Your task to perform on an android device: Add jbl flip 4 to the cart on newegg.com Image 0: 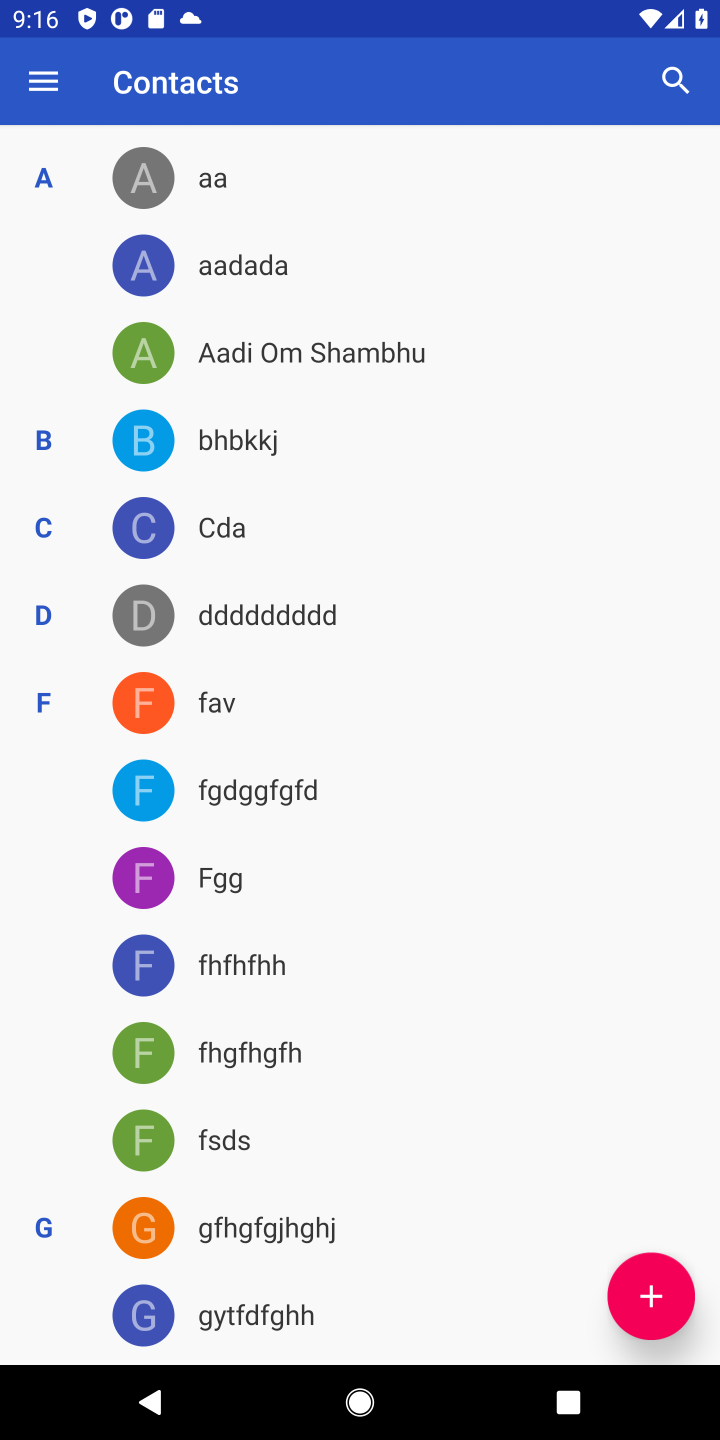
Step 0: press home button
Your task to perform on an android device: Add jbl flip 4 to the cart on newegg.com Image 1: 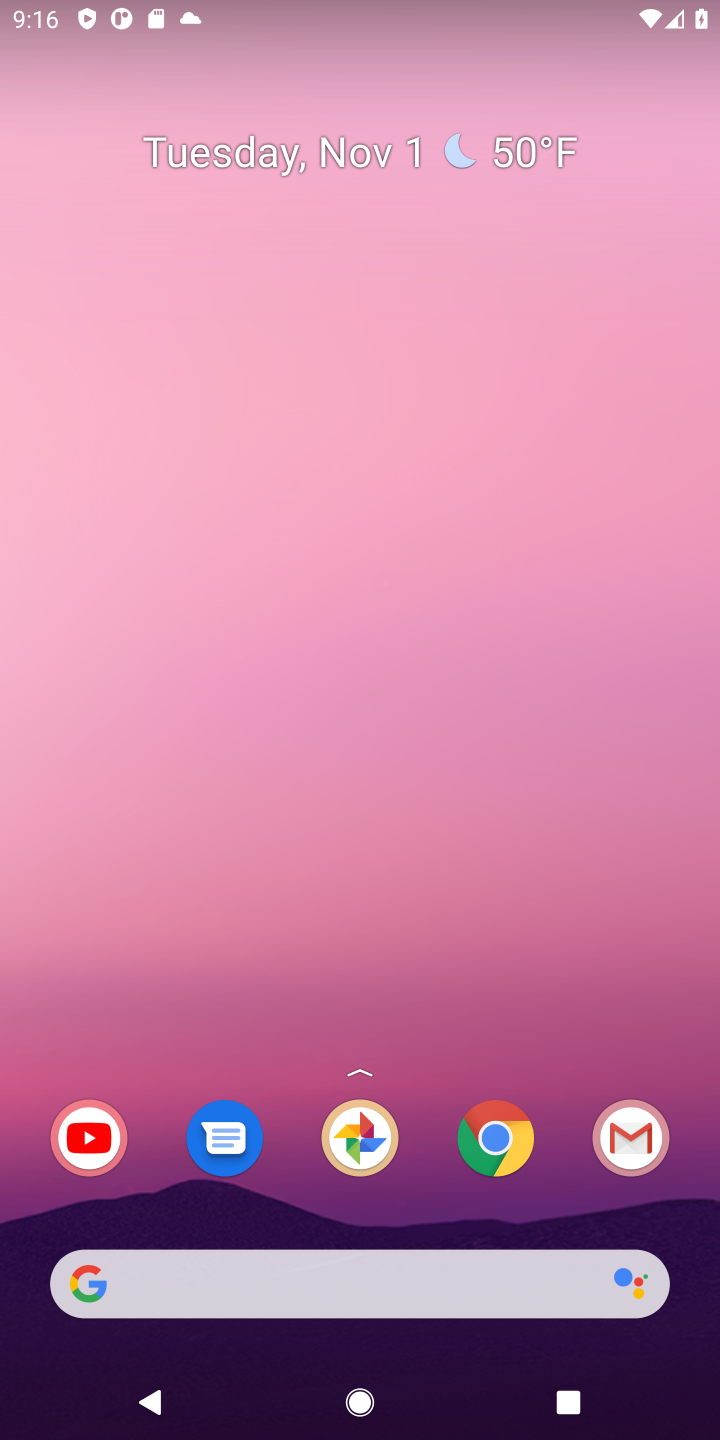
Step 1: click (498, 1145)
Your task to perform on an android device: Add jbl flip 4 to the cart on newegg.com Image 2: 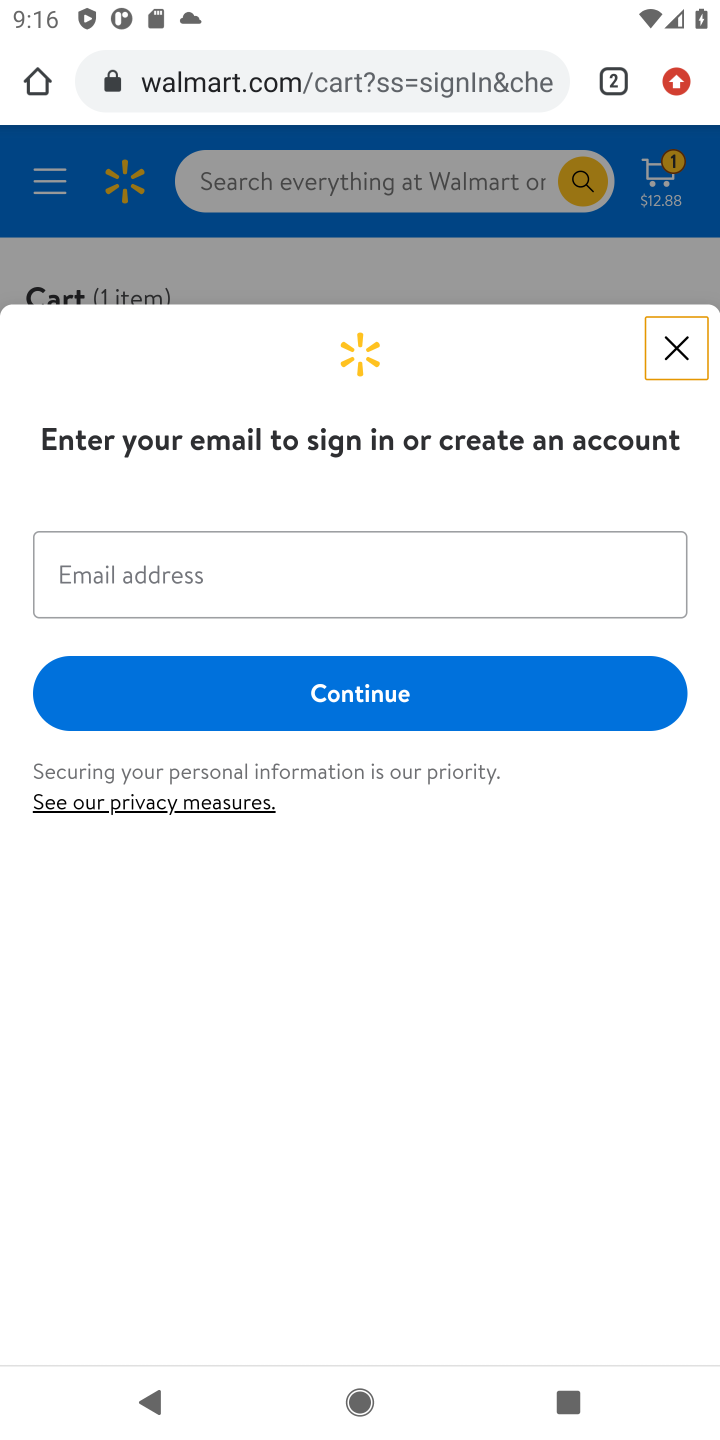
Step 2: click (399, 78)
Your task to perform on an android device: Add jbl flip 4 to the cart on newegg.com Image 3: 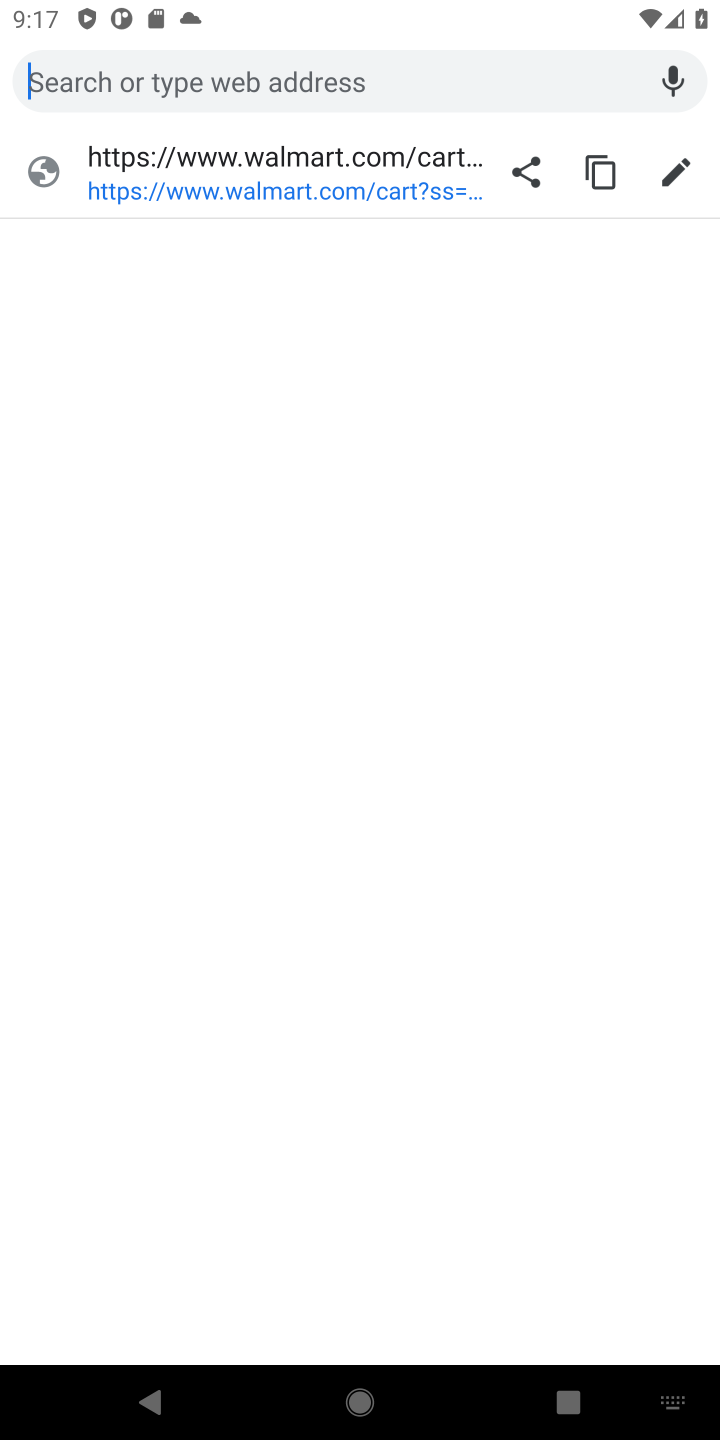
Step 3: type "newegg.com"
Your task to perform on an android device: Add jbl flip 4 to the cart on newegg.com Image 4: 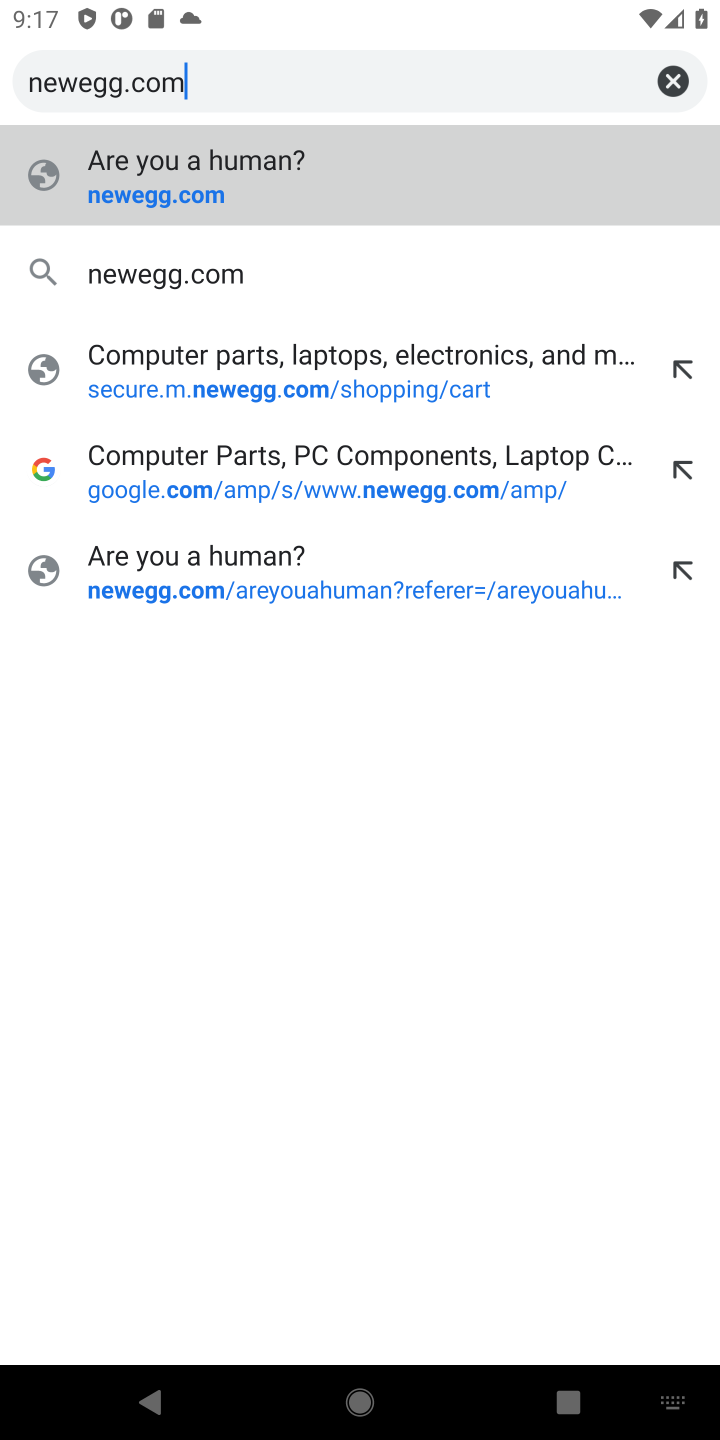
Step 4: click (217, 291)
Your task to perform on an android device: Add jbl flip 4 to the cart on newegg.com Image 5: 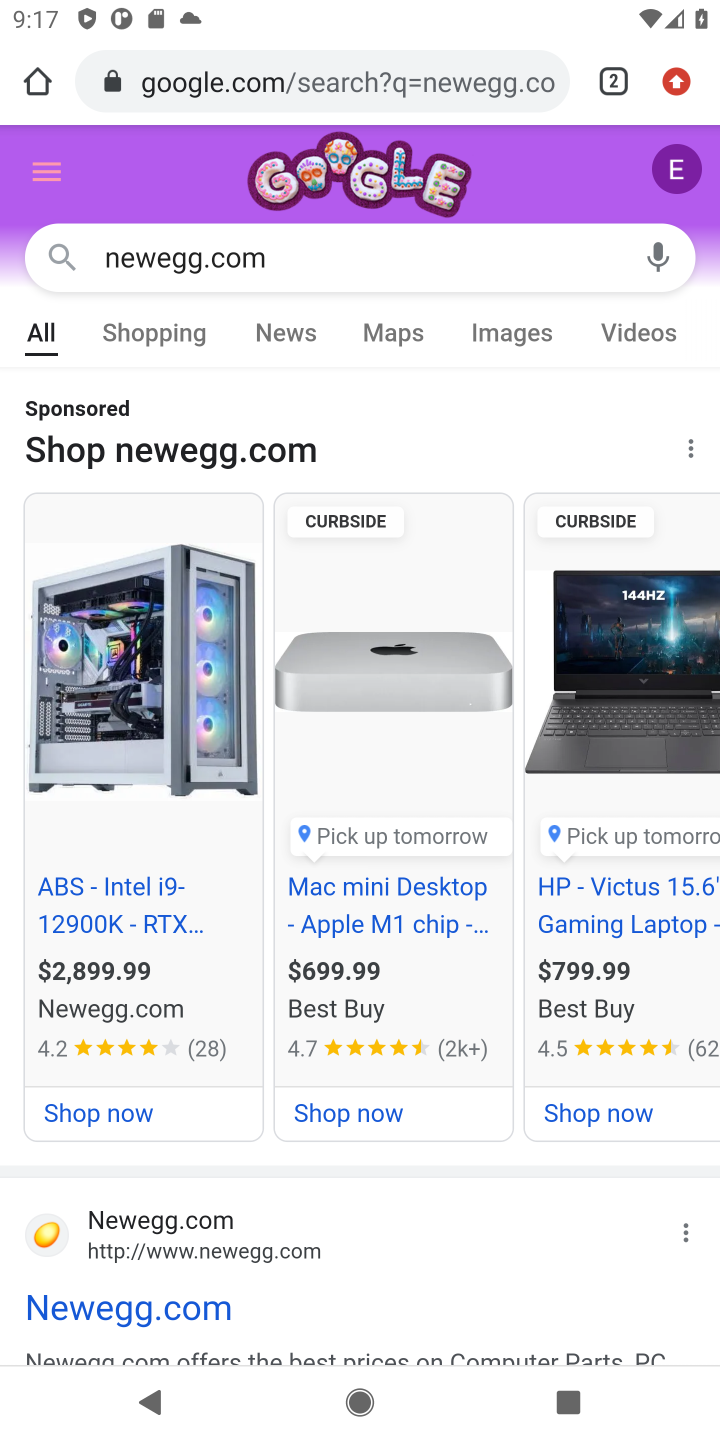
Step 5: click (226, 1234)
Your task to perform on an android device: Add jbl flip 4 to the cart on newegg.com Image 6: 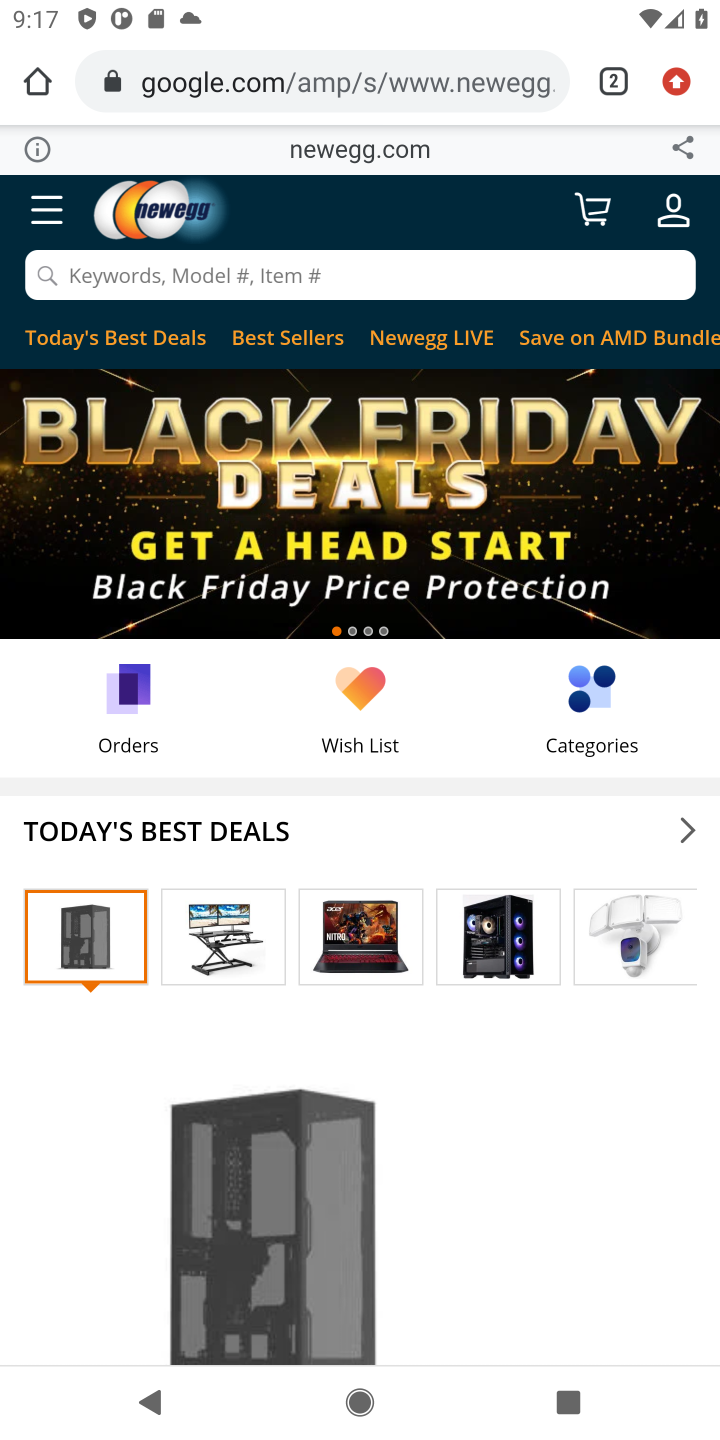
Step 6: click (401, 282)
Your task to perform on an android device: Add jbl flip 4 to the cart on newegg.com Image 7: 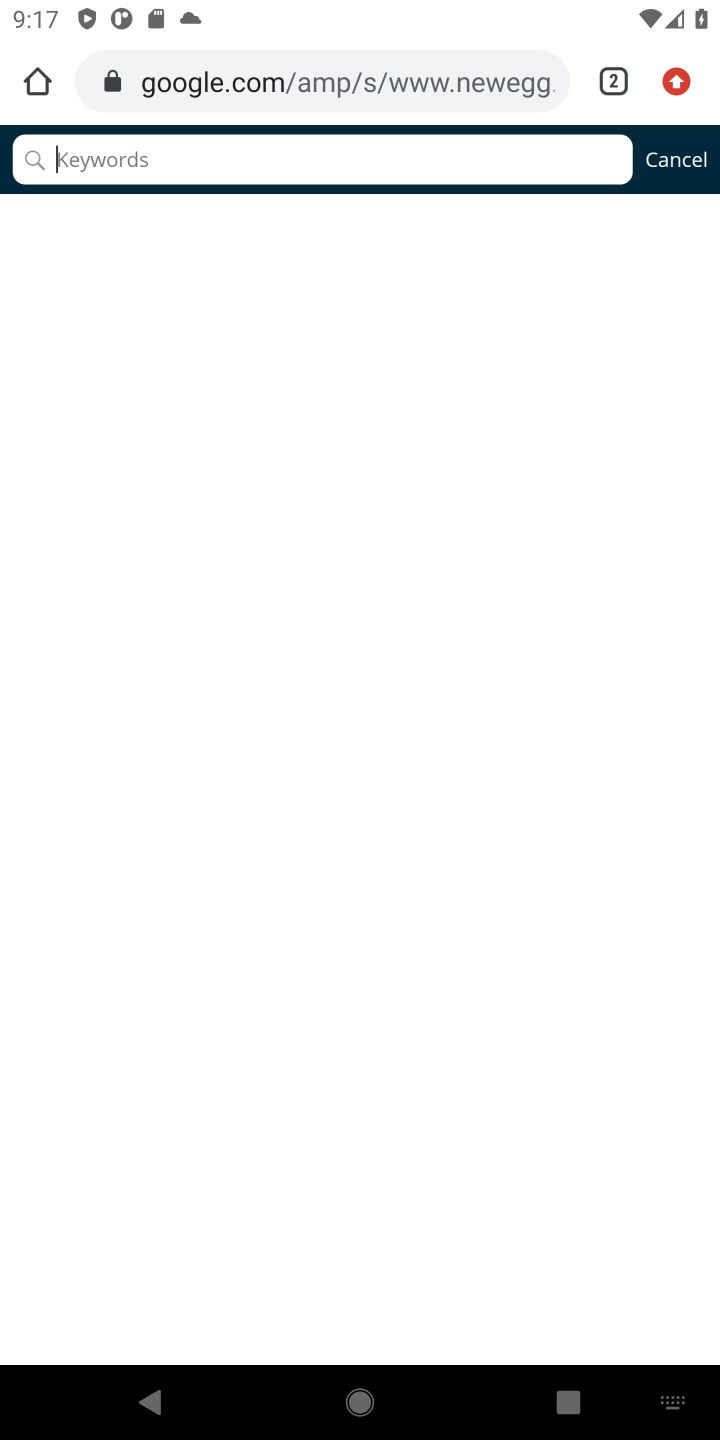
Step 7: type "jbl flip 4"
Your task to perform on an android device: Add jbl flip 4 to the cart on newegg.com Image 8: 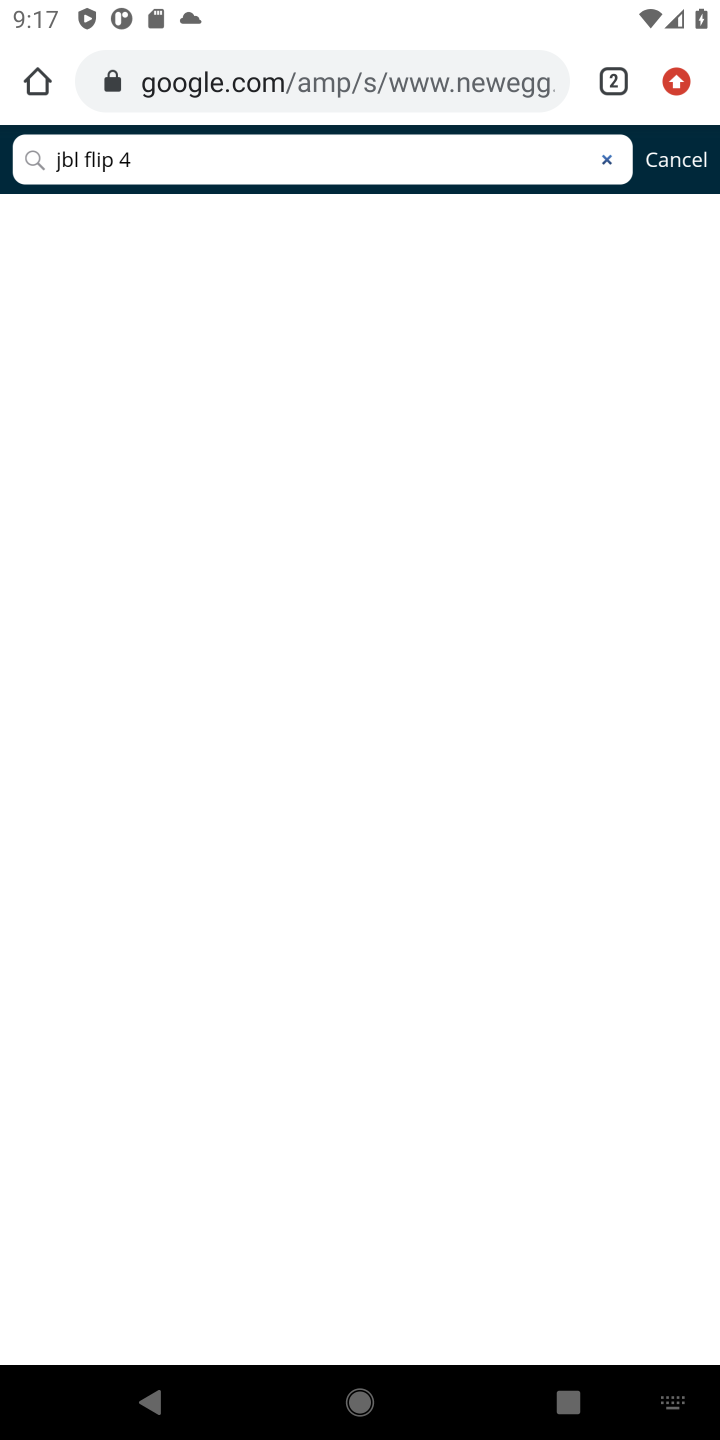
Step 8: click (32, 161)
Your task to perform on an android device: Add jbl flip 4 to the cart on newegg.com Image 9: 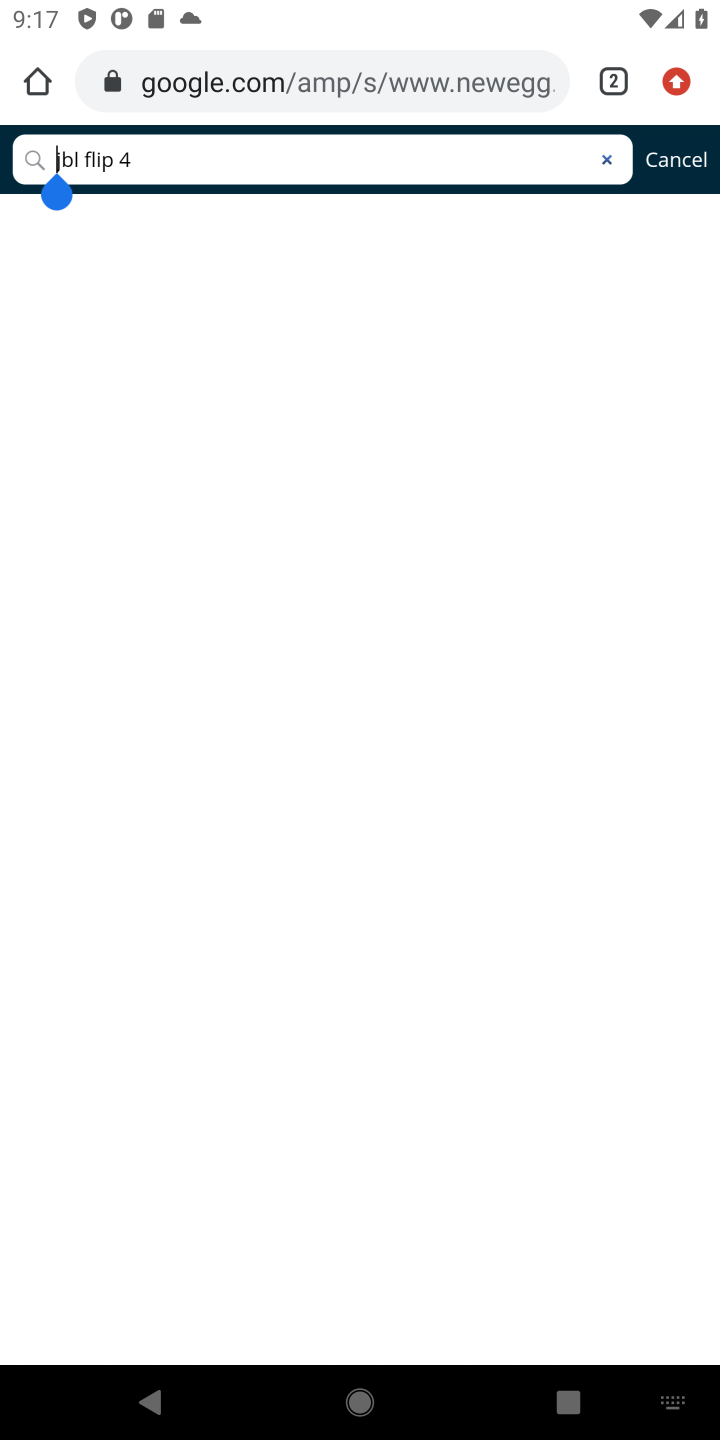
Step 9: task complete